Your task to perform on an android device: turn on improve location accuracy Image 0: 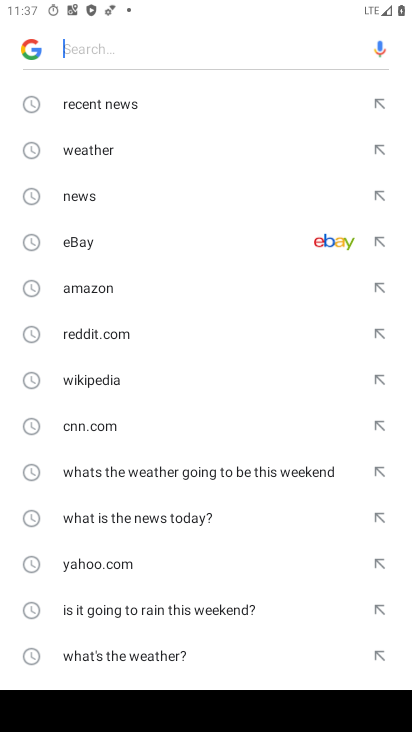
Step 0: press home button
Your task to perform on an android device: turn on improve location accuracy Image 1: 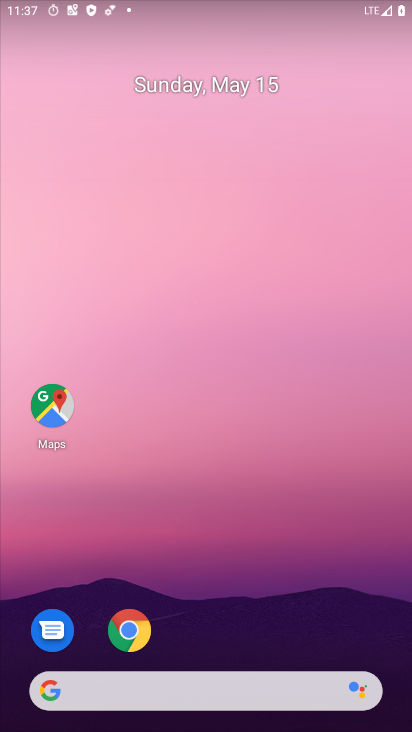
Step 1: drag from (257, 632) to (344, 185)
Your task to perform on an android device: turn on improve location accuracy Image 2: 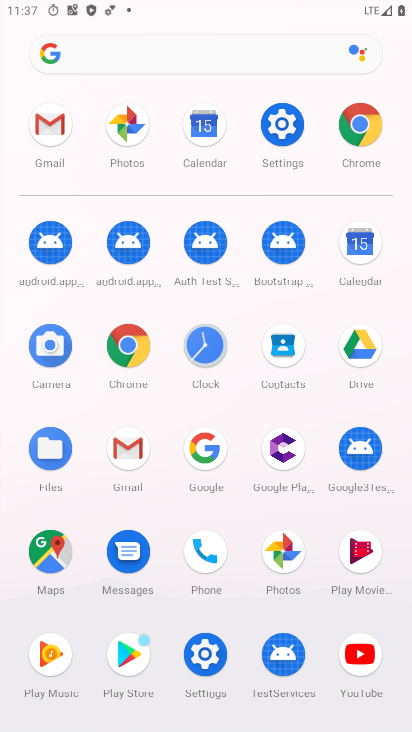
Step 2: click (280, 122)
Your task to perform on an android device: turn on improve location accuracy Image 3: 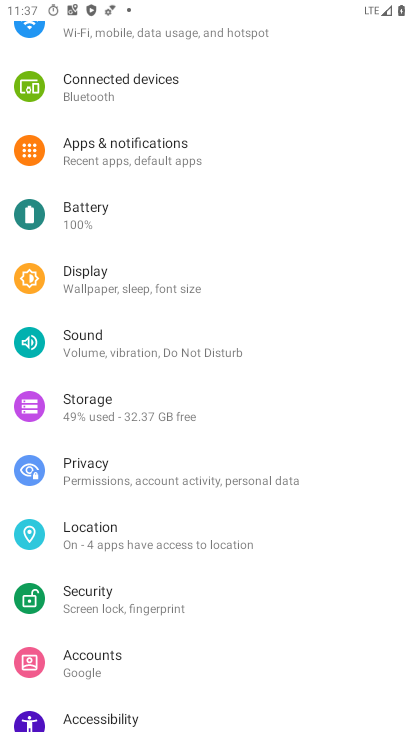
Step 3: click (104, 539)
Your task to perform on an android device: turn on improve location accuracy Image 4: 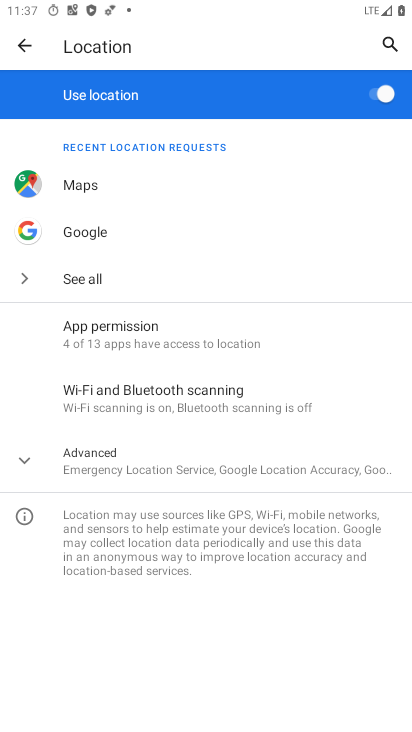
Step 4: click (156, 461)
Your task to perform on an android device: turn on improve location accuracy Image 5: 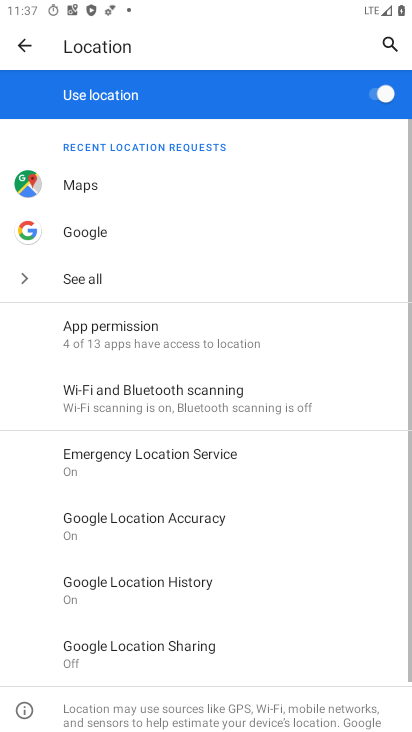
Step 5: click (182, 525)
Your task to perform on an android device: turn on improve location accuracy Image 6: 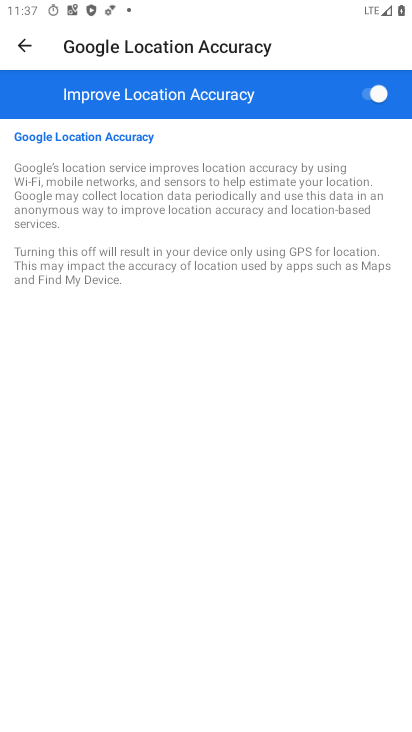
Step 6: task complete